Your task to perform on an android device: move an email to a new category in the gmail app Image 0: 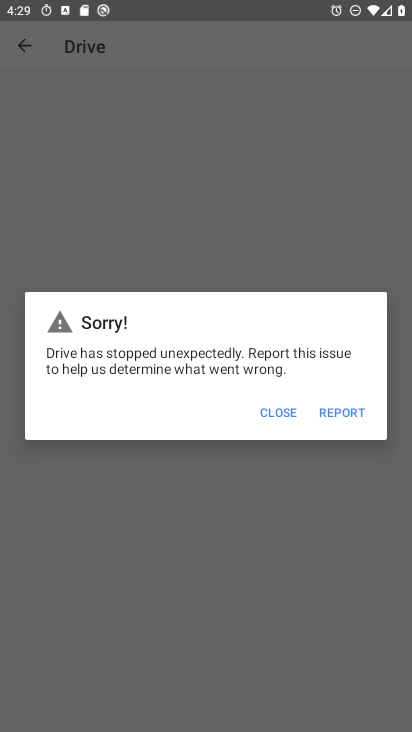
Step 0: press home button
Your task to perform on an android device: move an email to a new category in the gmail app Image 1: 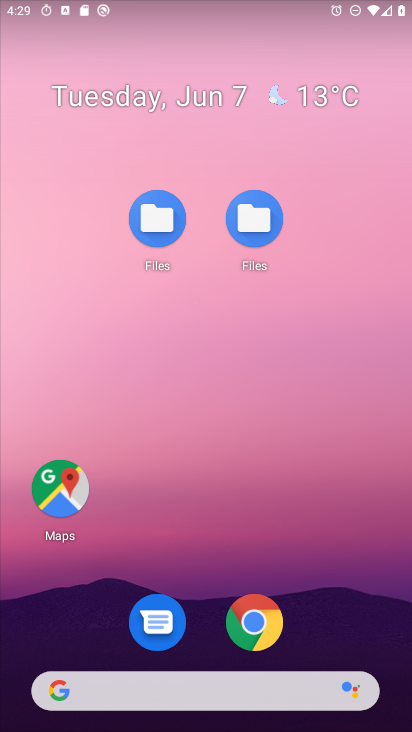
Step 1: drag from (368, 636) to (409, 84)
Your task to perform on an android device: move an email to a new category in the gmail app Image 2: 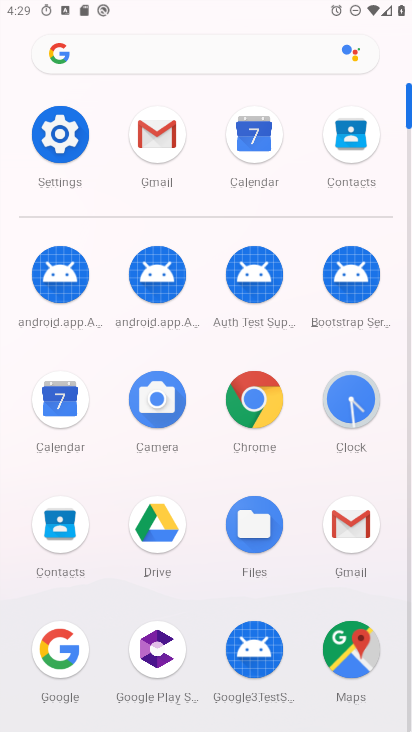
Step 2: click (149, 140)
Your task to perform on an android device: move an email to a new category in the gmail app Image 3: 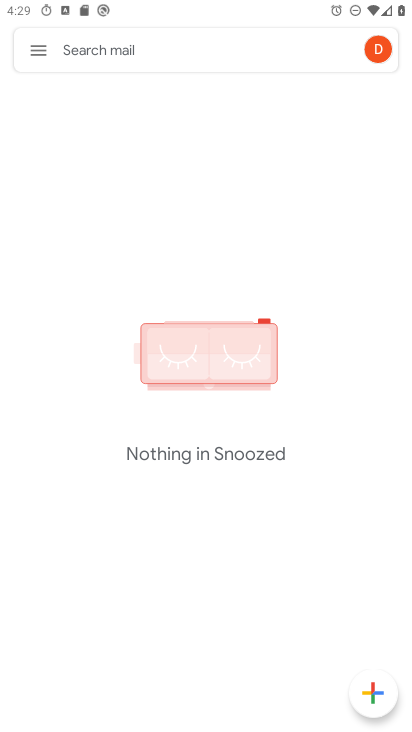
Step 3: click (44, 55)
Your task to perform on an android device: move an email to a new category in the gmail app Image 4: 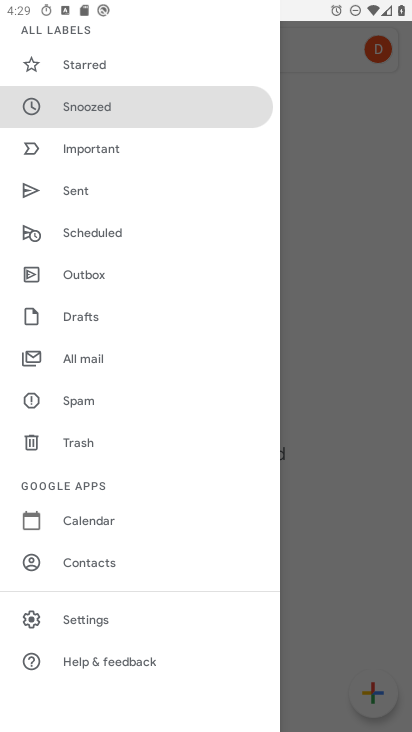
Step 4: click (112, 611)
Your task to perform on an android device: move an email to a new category in the gmail app Image 5: 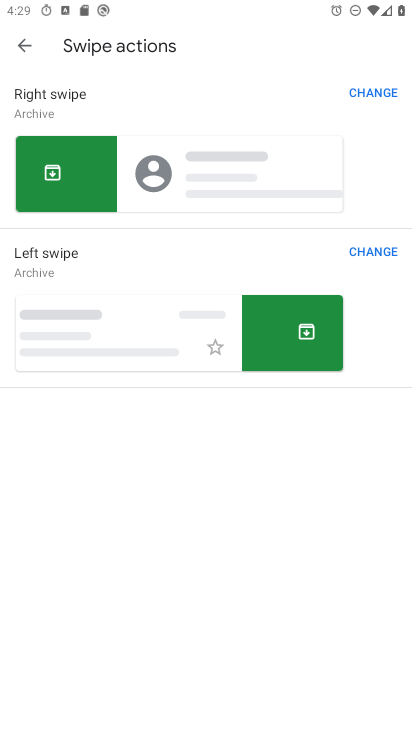
Step 5: click (34, 60)
Your task to perform on an android device: move an email to a new category in the gmail app Image 6: 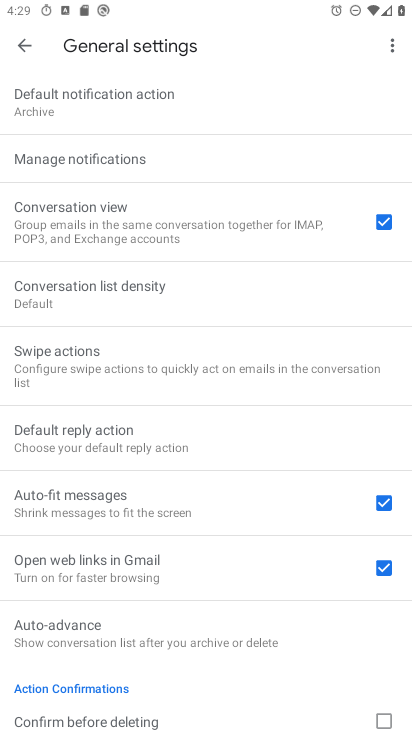
Step 6: click (34, 48)
Your task to perform on an android device: move an email to a new category in the gmail app Image 7: 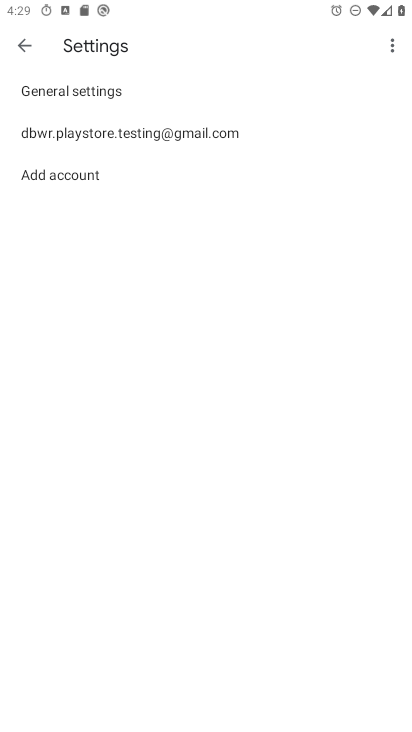
Step 7: task complete